Your task to perform on an android device: toggle notification dots Image 0: 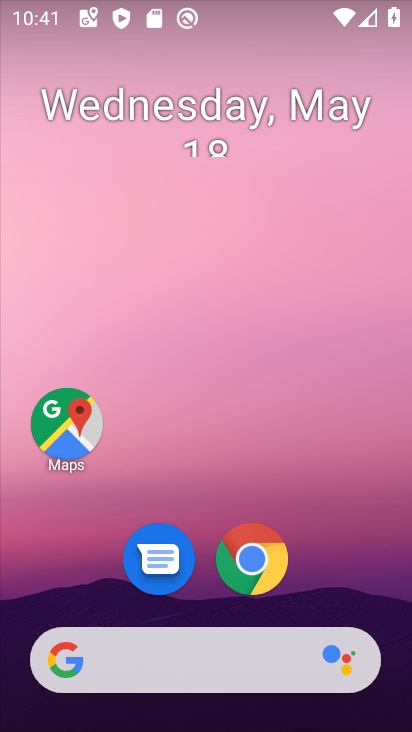
Step 0: drag from (205, 586) to (232, 92)
Your task to perform on an android device: toggle notification dots Image 1: 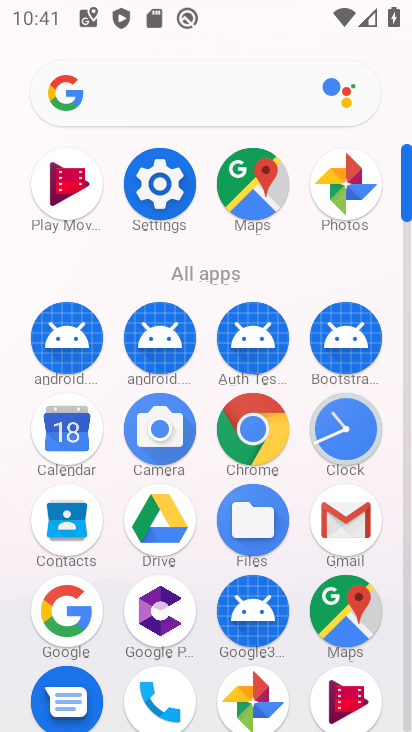
Step 1: click (161, 199)
Your task to perform on an android device: toggle notification dots Image 2: 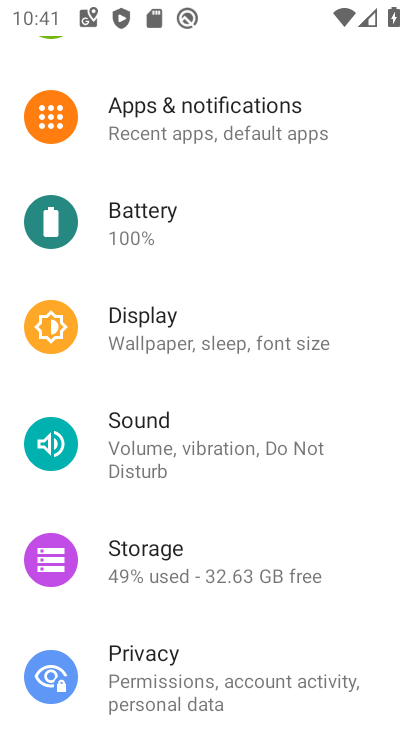
Step 2: click (195, 108)
Your task to perform on an android device: toggle notification dots Image 3: 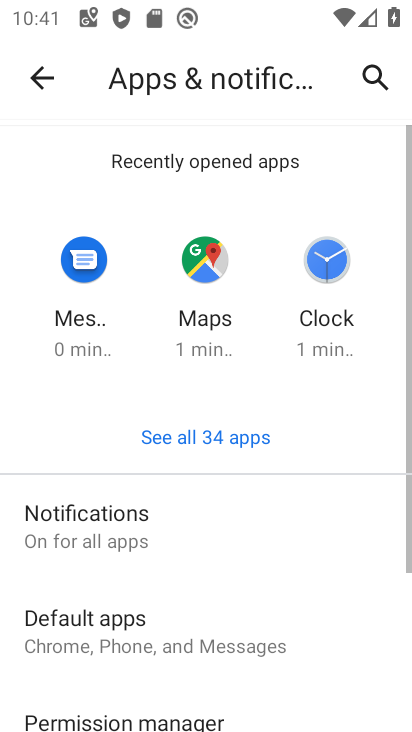
Step 3: click (122, 532)
Your task to perform on an android device: toggle notification dots Image 4: 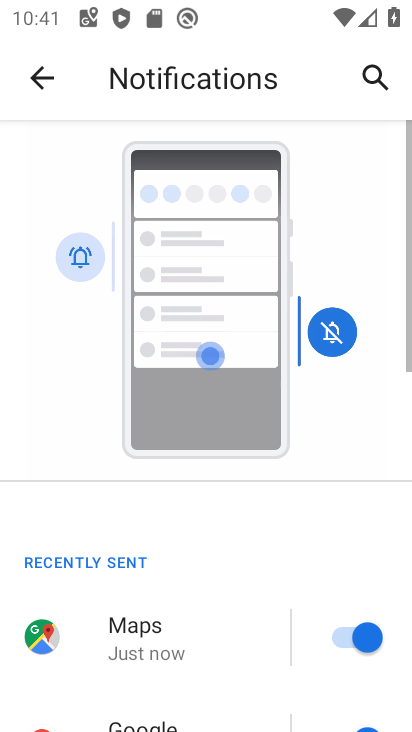
Step 4: drag from (189, 623) to (296, 67)
Your task to perform on an android device: toggle notification dots Image 5: 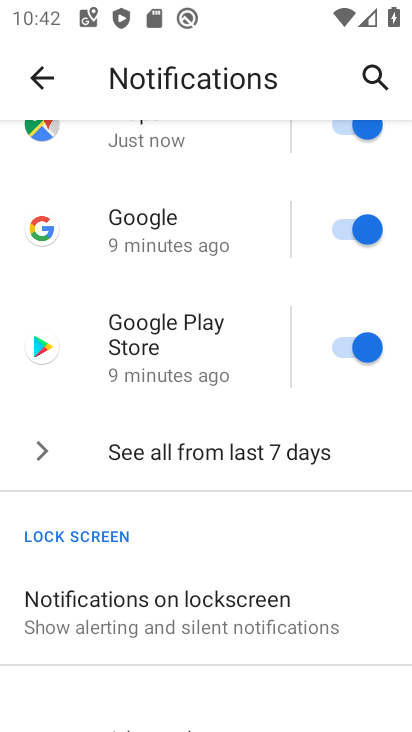
Step 5: drag from (142, 578) to (206, 162)
Your task to perform on an android device: toggle notification dots Image 6: 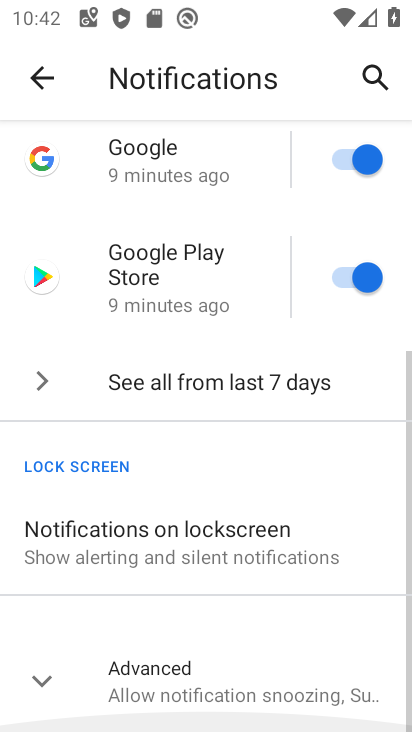
Step 6: click (142, 698)
Your task to perform on an android device: toggle notification dots Image 7: 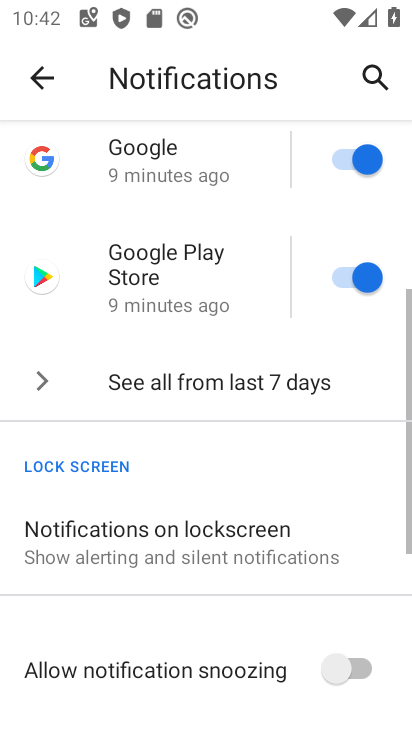
Step 7: drag from (170, 631) to (251, 122)
Your task to perform on an android device: toggle notification dots Image 8: 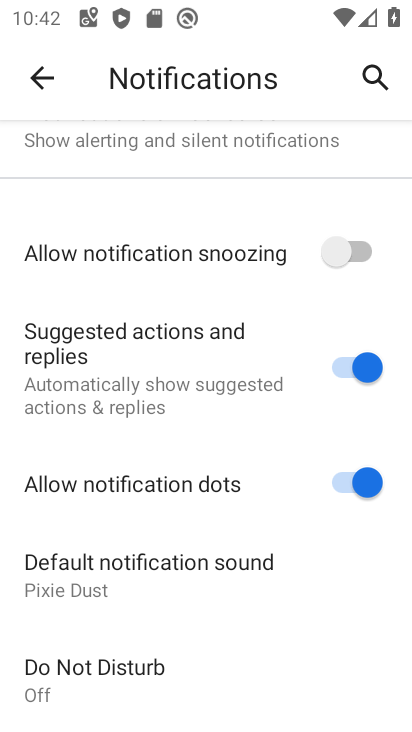
Step 8: click (364, 475)
Your task to perform on an android device: toggle notification dots Image 9: 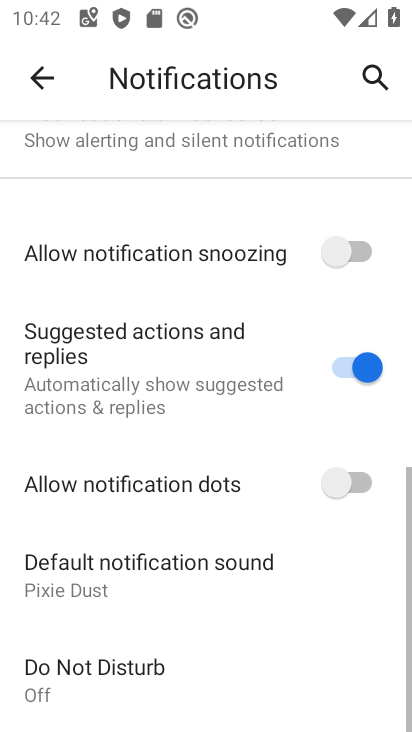
Step 9: task complete